Your task to perform on an android device: change the upload size in google photos Image 0: 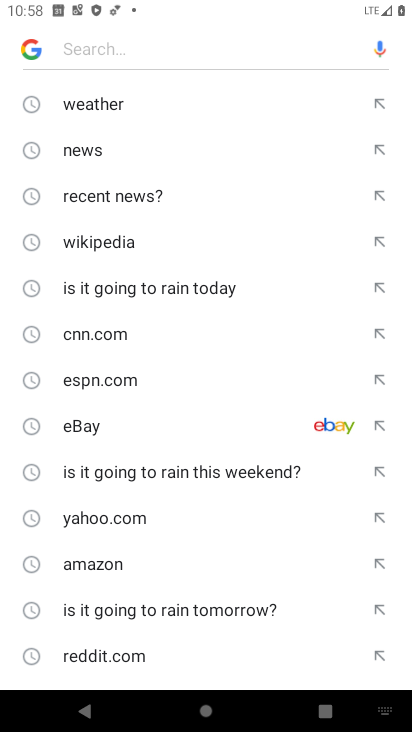
Step 0: press home button
Your task to perform on an android device: change the upload size in google photos Image 1: 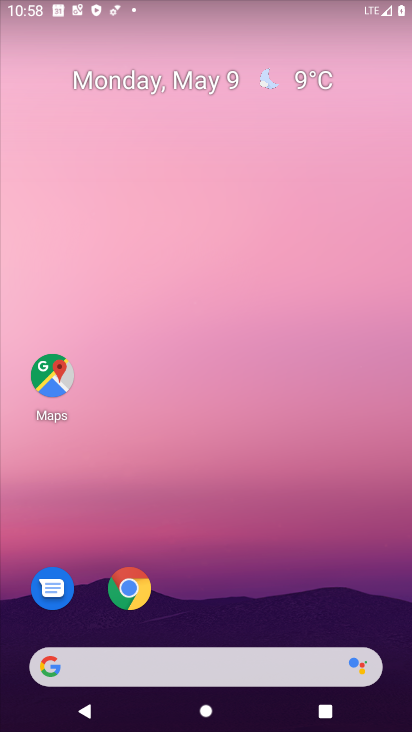
Step 1: drag from (176, 639) to (235, 132)
Your task to perform on an android device: change the upload size in google photos Image 2: 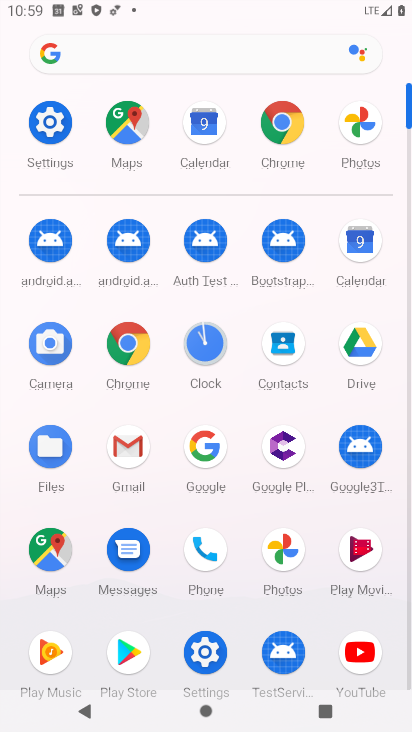
Step 2: click (365, 126)
Your task to perform on an android device: change the upload size in google photos Image 3: 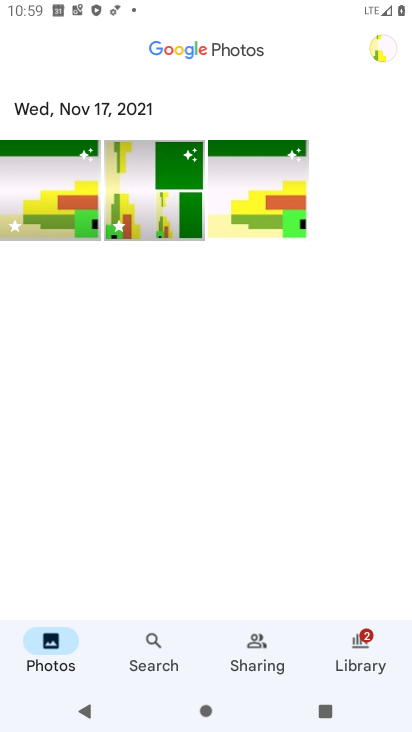
Step 3: click (382, 49)
Your task to perform on an android device: change the upload size in google photos Image 4: 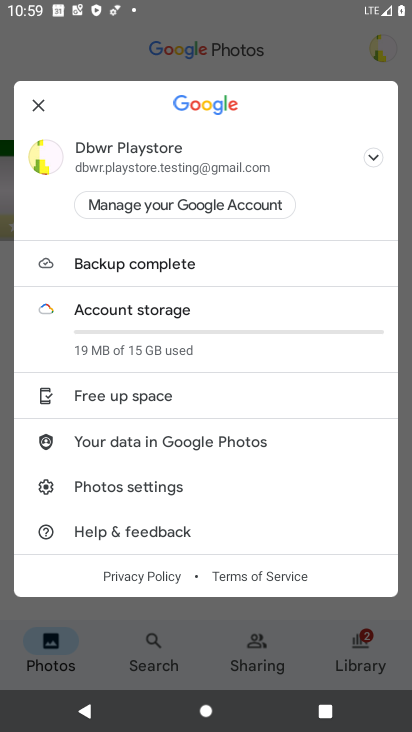
Step 4: click (165, 488)
Your task to perform on an android device: change the upload size in google photos Image 5: 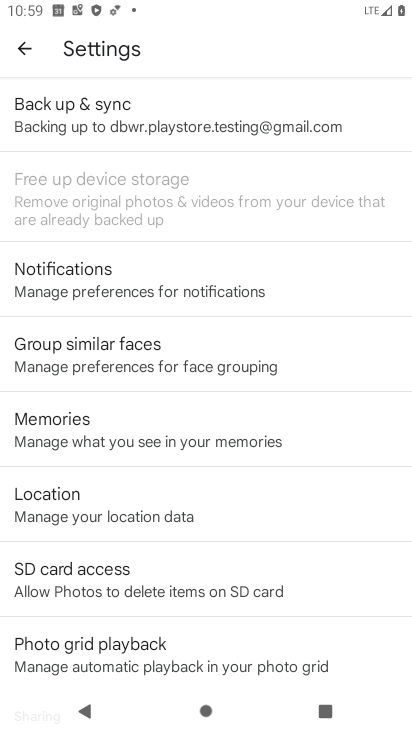
Step 5: click (192, 116)
Your task to perform on an android device: change the upload size in google photos Image 6: 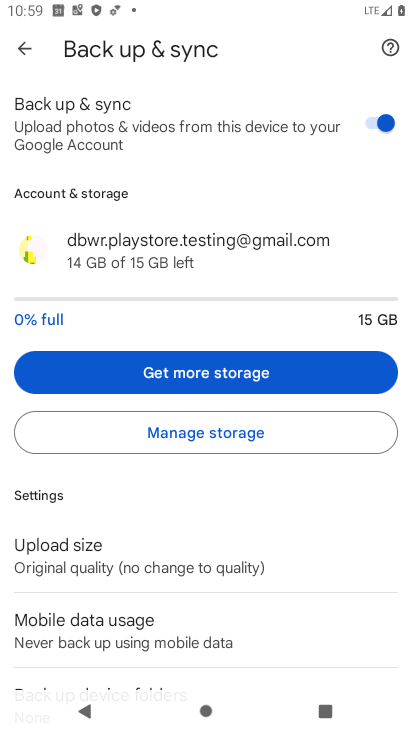
Step 6: drag from (187, 537) to (349, 201)
Your task to perform on an android device: change the upload size in google photos Image 7: 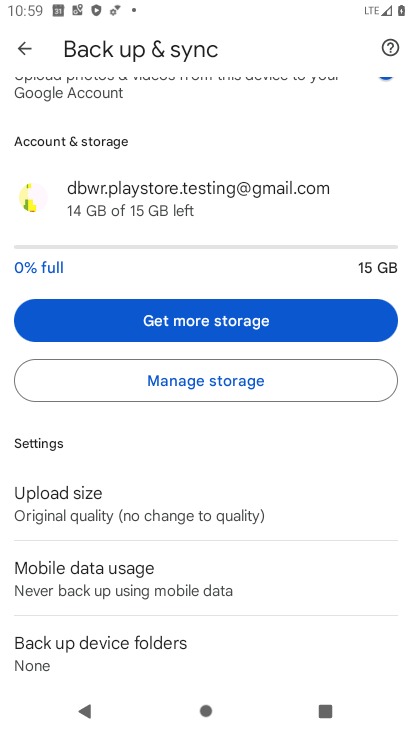
Step 7: click (146, 515)
Your task to perform on an android device: change the upload size in google photos Image 8: 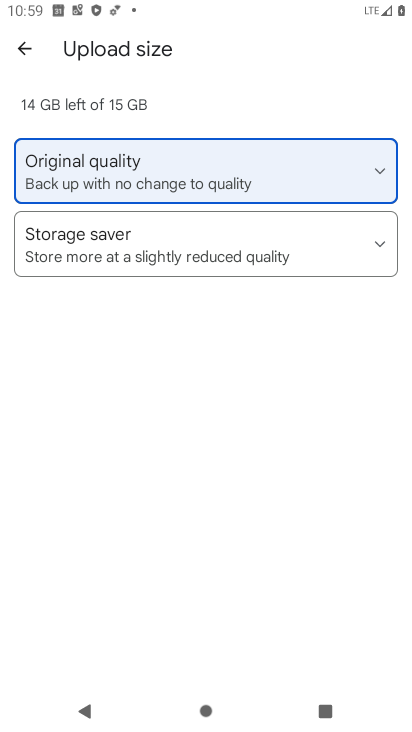
Step 8: click (381, 244)
Your task to perform on an android device: change the upload size in google photos Image 9: 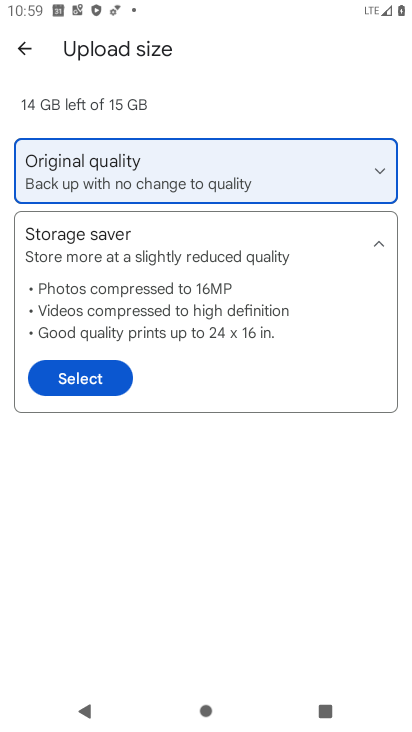
Step 9: click (68, 379)
Your task to perform on an android device: change the upload size in google photos Image 10: 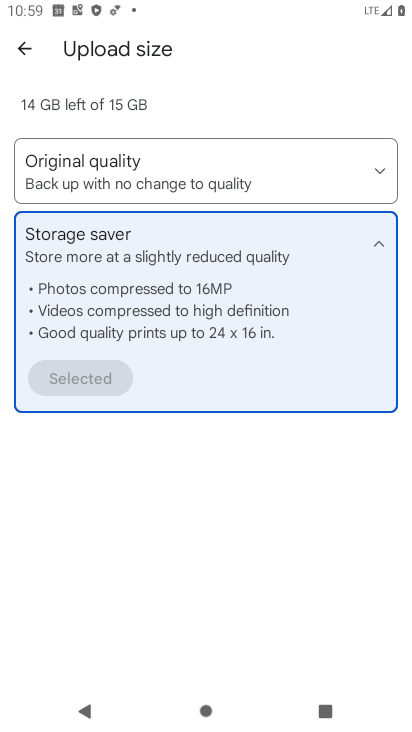
Step 10: task complete